Your task to perform on an android device: delete the emails in spam in the gmail app Image 0: 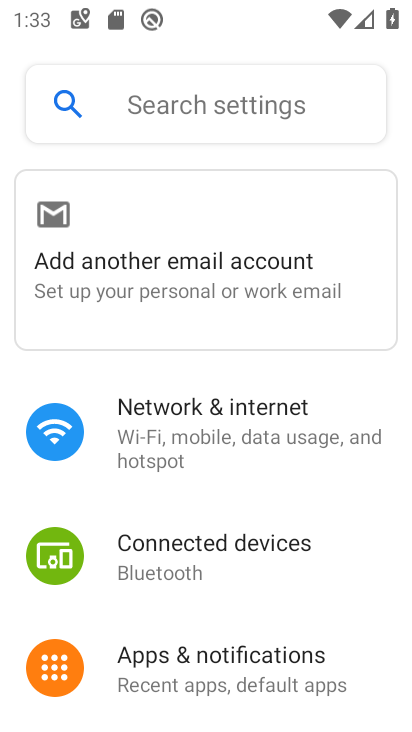
Step 0: press home button
Your task to perform on an android device: delete the emails in spam in the gmail app Image 1: 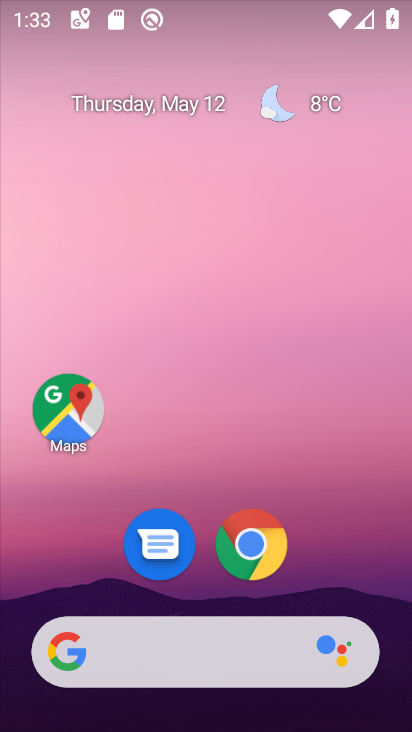
Step 1: drag from (219, 527) to (209, 163)
Your task to perform on an android device: delete the emails in spam in the gmail app Image 2: 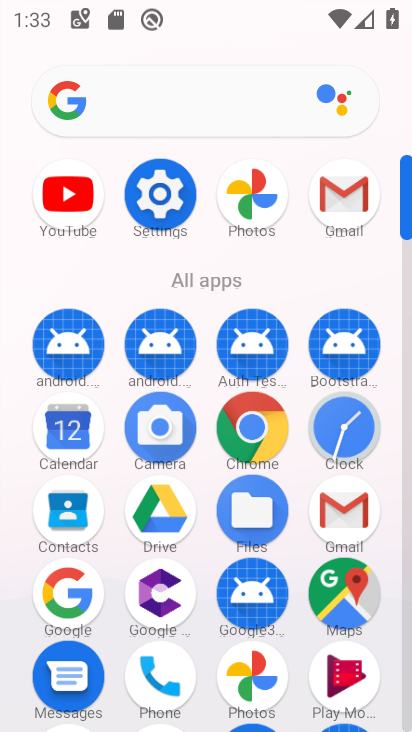
Step 2: click (342, 196)
Your task to perform on an android device: delete the emails in spam in the gmail app Image 3: 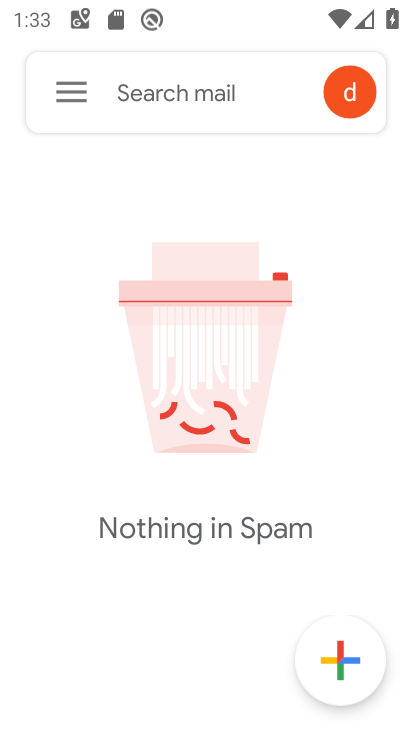
Step 3: click (79, 93)
Your task to perform on an android device: delete the emails in spam in the gmail app Image 4: 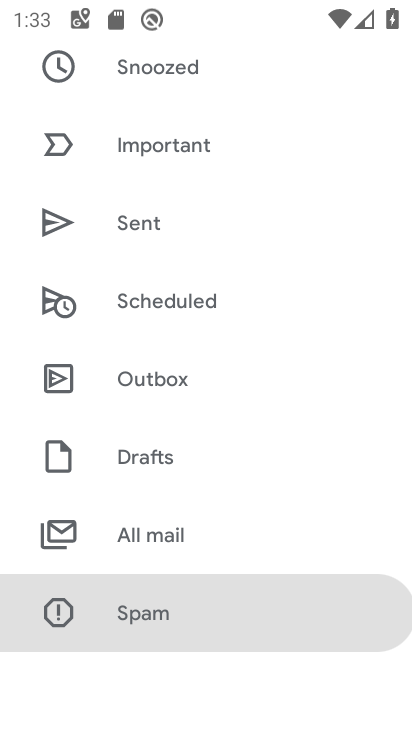
Step 4: task complete